Your task to perform on an android device: toggle notification dots Image 0: 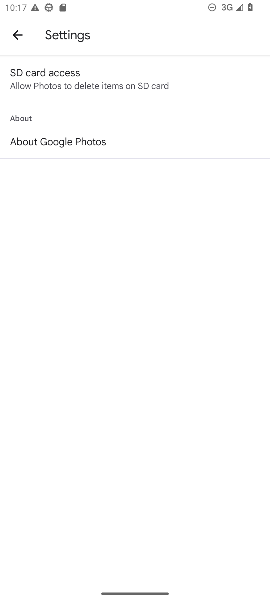
Step 0: press home button
Your task to perform on an android device: toggle notification dots Image 1: 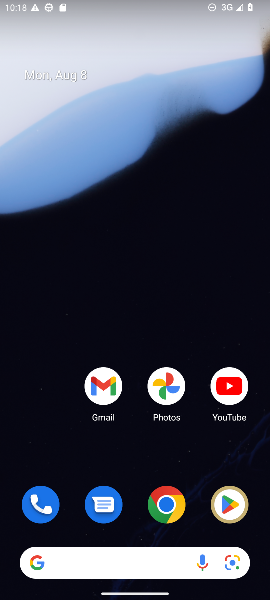
Step 1: drag from (116, 457) to (162, 131)
Your task to perform on an android device: toggle notification dots Image 2: 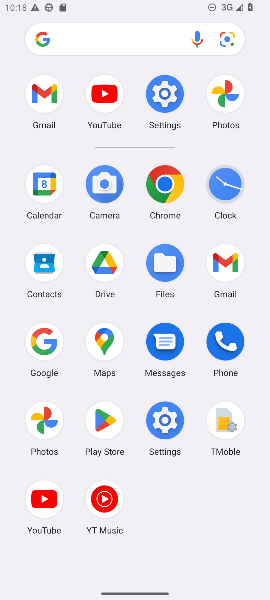
Step 2: click (161, 428)
Your task to perform on an android device: toggle notification dots Image 3: 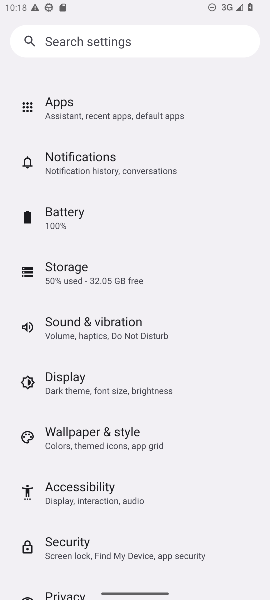
Step 3: click (115, 169)
Your task to perform on an android device: toggle notification dots Image 4: 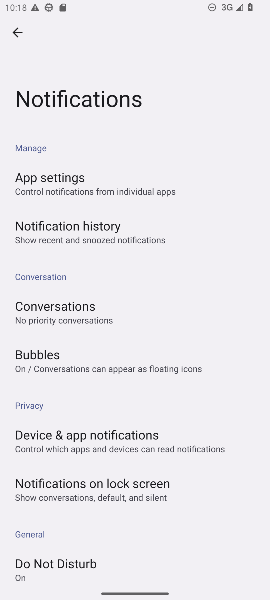
Step 4: drag from (93, 419) to (120, 95)
Your task to perform on an android device: toggle notification dots Image 5: 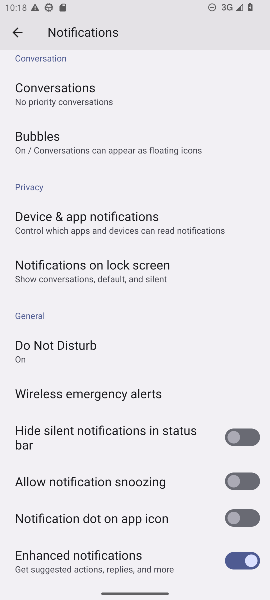
Step 5: drag from (86, 476) to (106, 314)
Your task to perform on an android device: toggle notification dots Image 6: 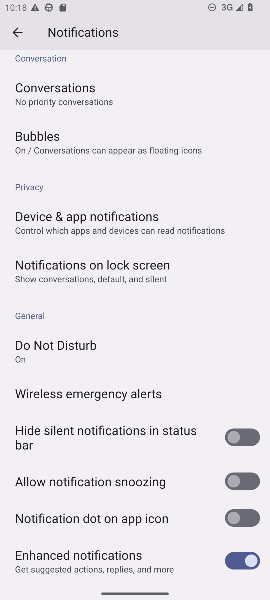
Step 6: click (262, 519)
Your task to perform on an android device: toggle notification dots Image 7: 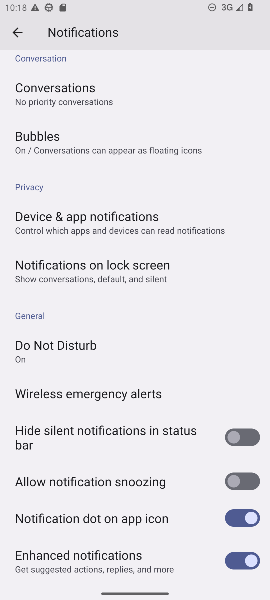
Step 7: task complete